Your task to perform on an android device: Open the calendar app, open the side menu, and click the "Day" option Image 0: 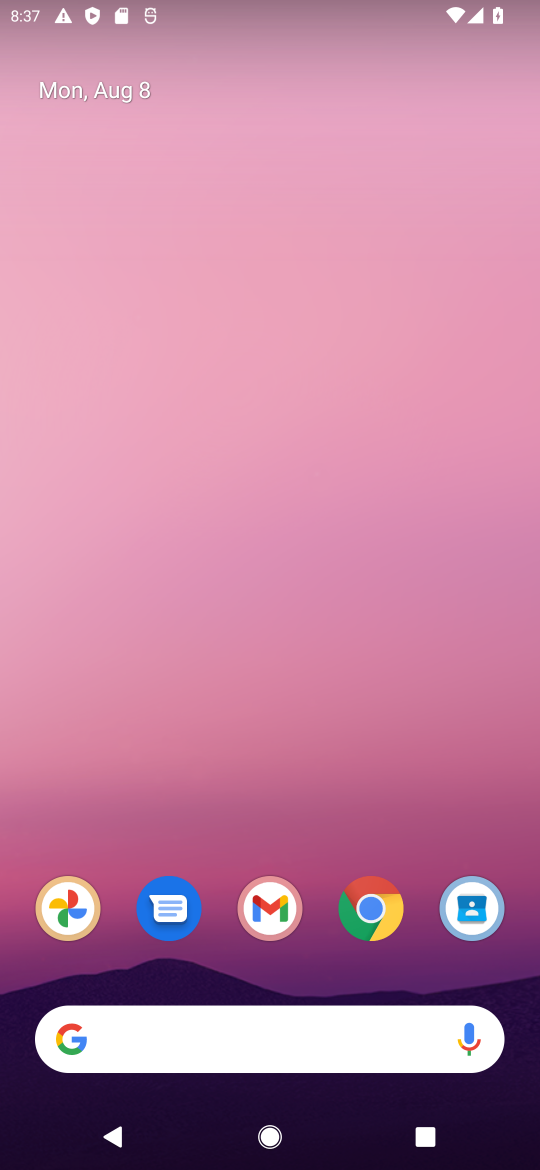
Step 0: click (117, 93)
Your task to perform on an android device: Open the calendar app, open the side menu, and click the "Day" option Image 1: 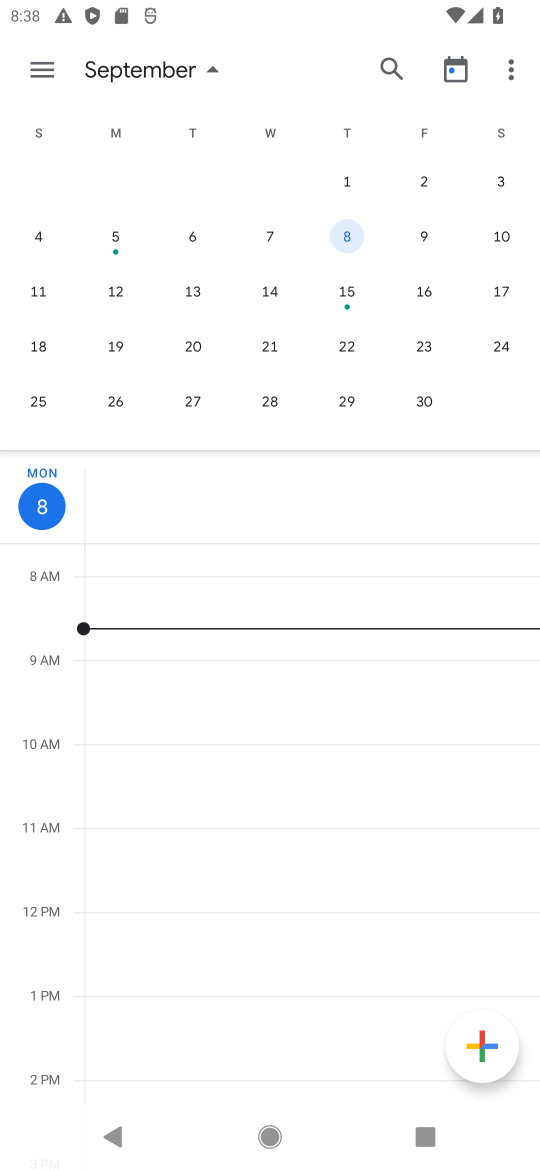
Step 1: click (26, 62)
Your task to perform on an android device: Open the calendar app, open the side menu, and click the "Day" option Image 2: 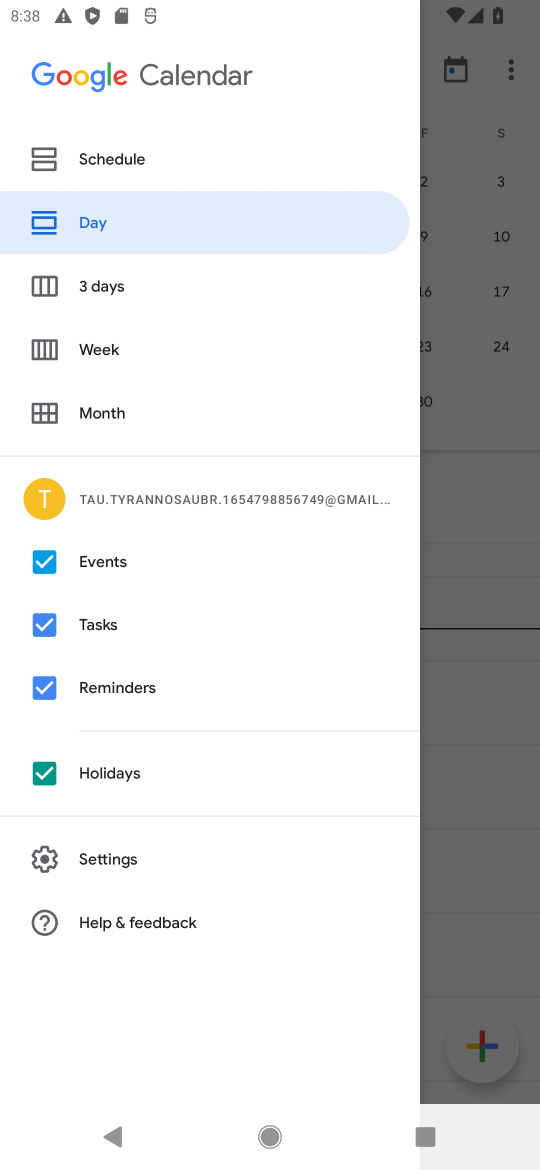
Step 2: click (290, 223)
Your task to perform on an android device: Open the calendar app, open the side menu, and click the "Day" option Image 3: 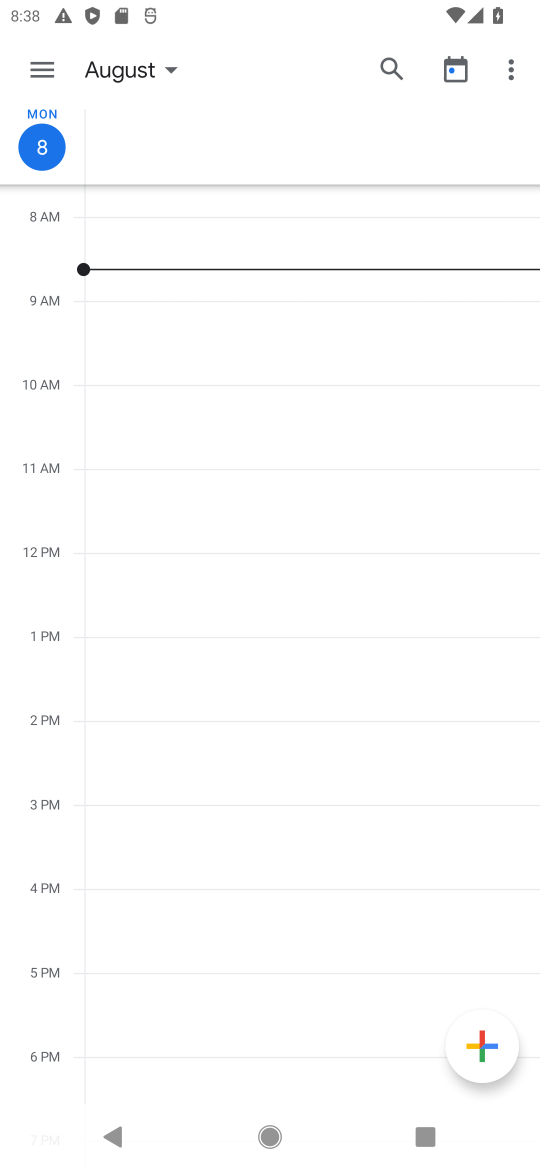
Step 3: task complete